Your task to perform on an android device: see tabs open on other devices in the chrome app Image 0: 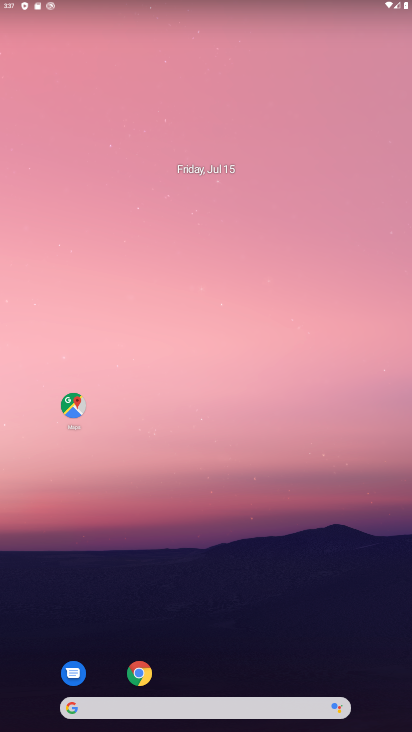
Step 0: click (146, 666)
Your task to perform on an android device: see tabs open on other devices in the chrome app Image 1: 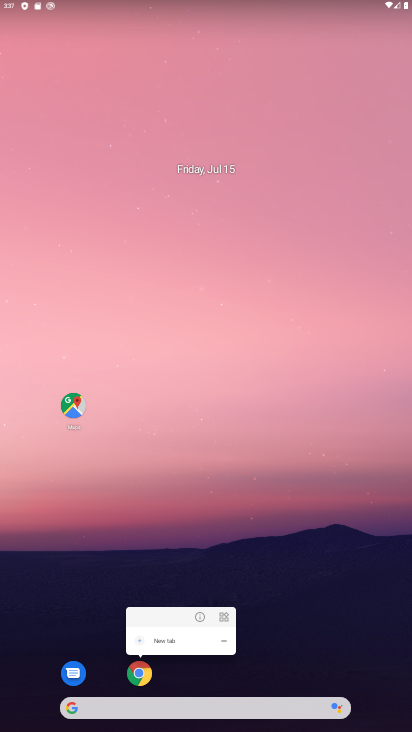
Step 1: click (143, 677)
Your task to perform on an android device: see tabs open on other devices in the chrome app Image 2: 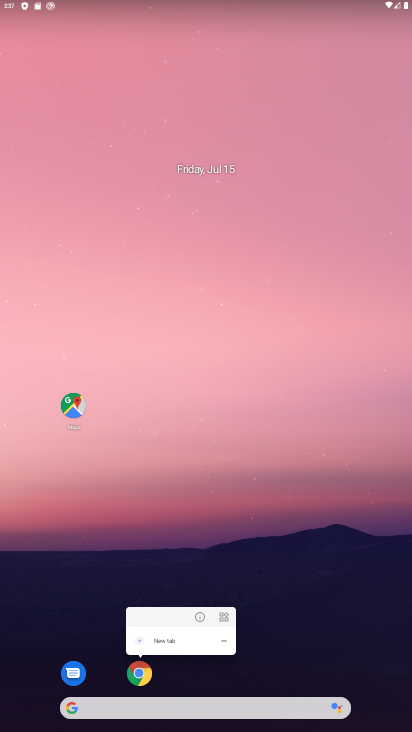
Step 2: click (142, 671)
Your task to perform on an android device: see tabs open on other devices in the chrome app Image 3: 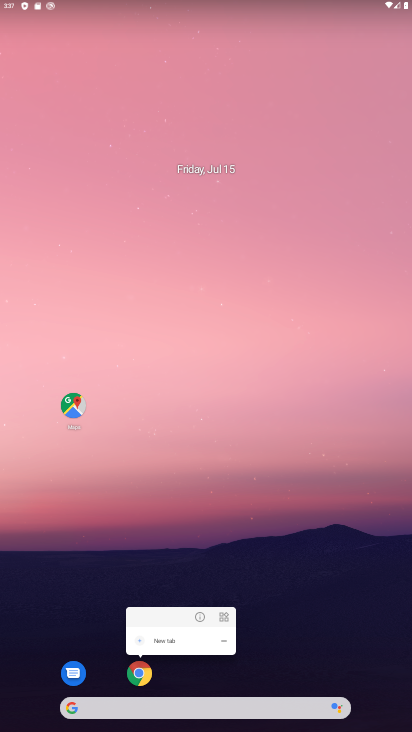
Step 3: click (136, 679)
Your task to perform on an android device: see tabs open on other devices in the chrome app Image 4: 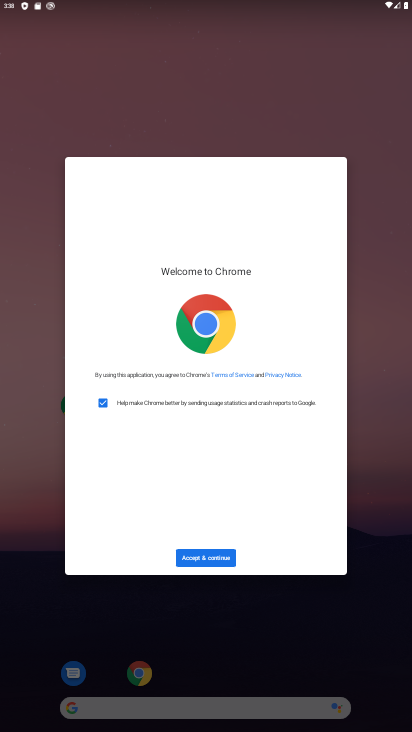
Step 4: click (225, 545)
Your task to perform on an android device: see tabs open on other devices in the chrome app Image 5: 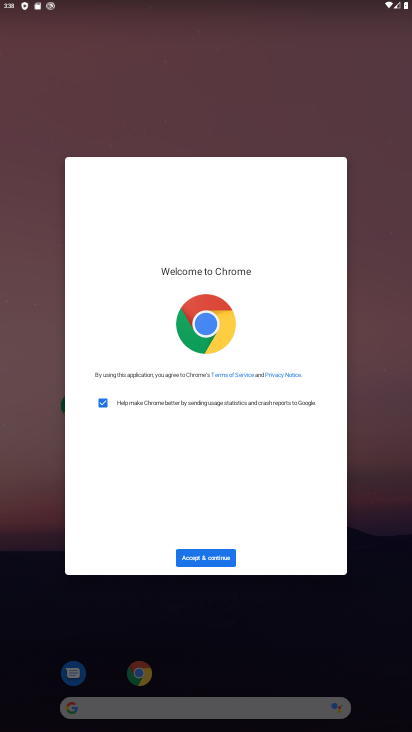
Step 5: click (199, 559)
Your task to perform on an android device: see tabs open on other devices in the chrome app Image 6: 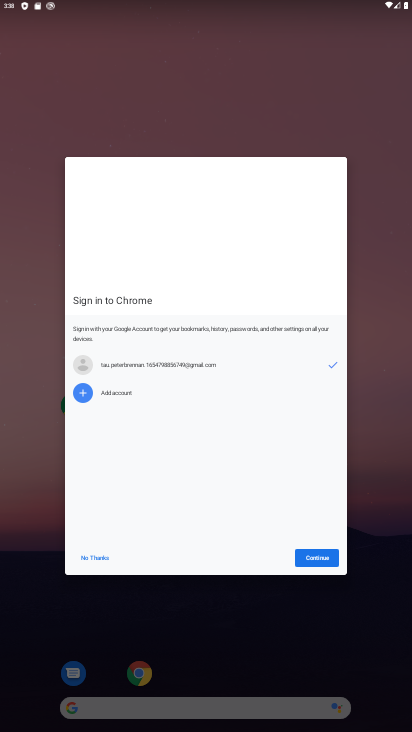
Step 6: click (320, 556)
Your task to perform on an android device: see tabs open on other devices in the chrome app Image 7: 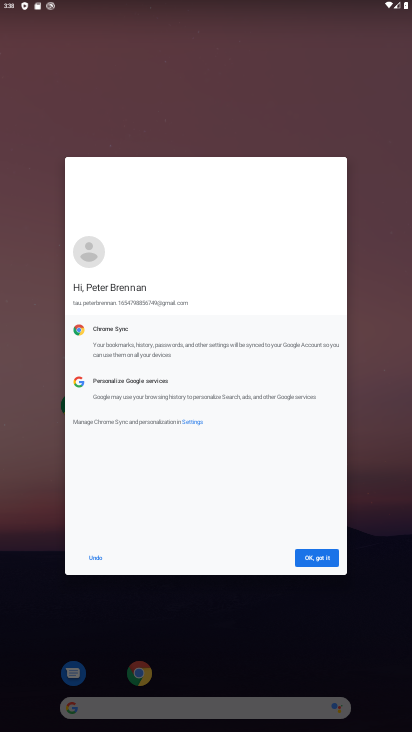
Step 7: click (320, 556)
Your task to perform on an android device: see tabs open on other devices in the chrome app Image 8: 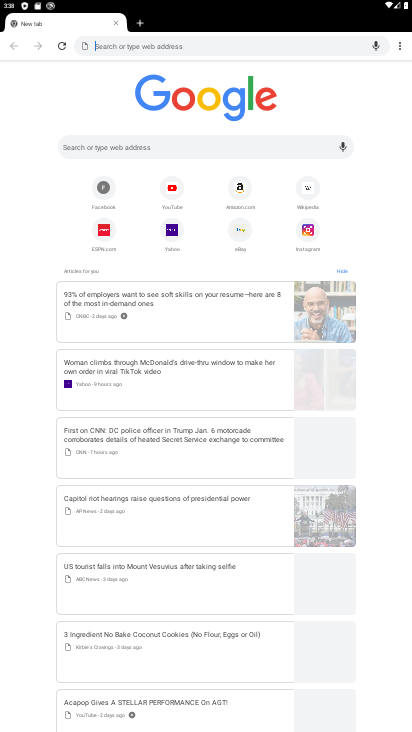
Step 8: task complete